Your task to perform on an android device: Go to Reddit.com Image 0: 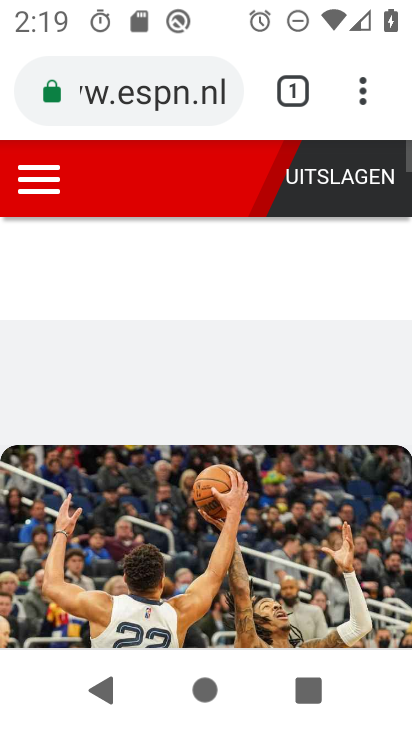
Step 0: press home button
Your task to perform on an android device: Go to Reddit.com Image 1: 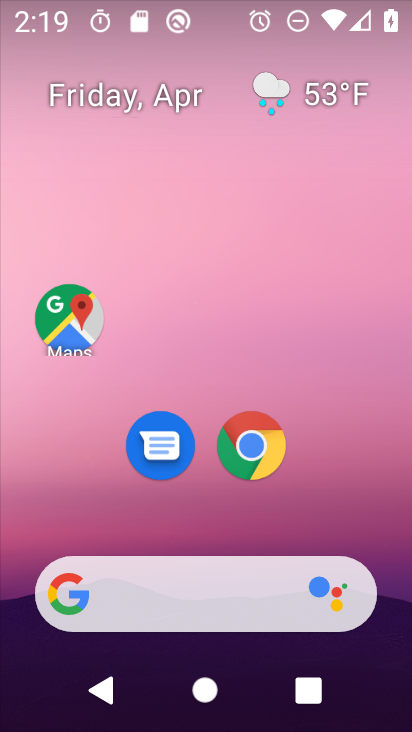
Step 1: drag from (360, 496) to (367, 125)
Your task to perform on an android device: Go to Reddit.com Image 2: 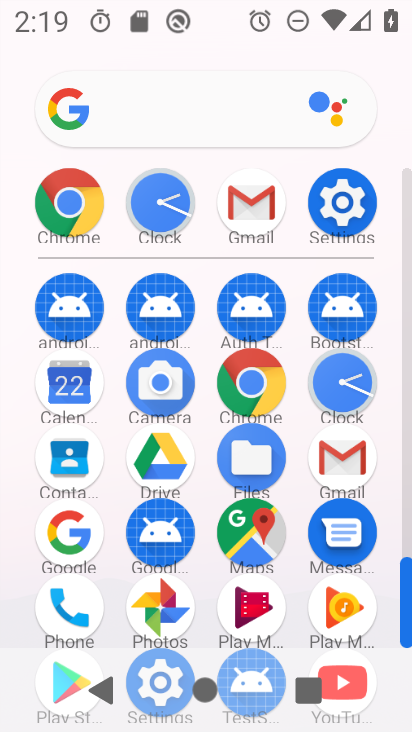
Step 2: click (242, 392)
Your task to perform on an android device: Go to Reddit.com Image 3: 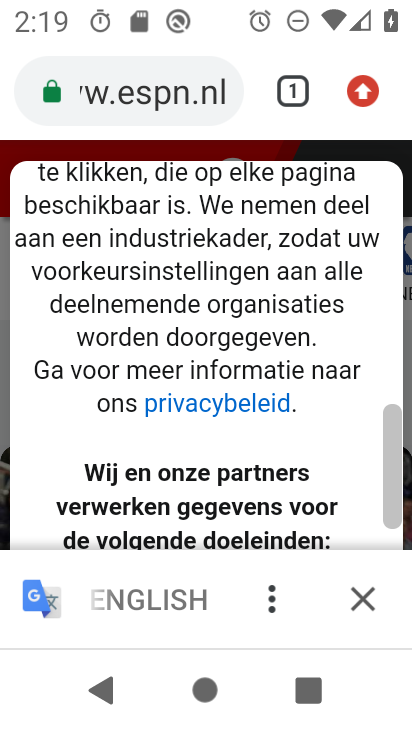
Step 3: click (184, 87)
Your task to perform on an android device: Go to Reddit.com Image 4: 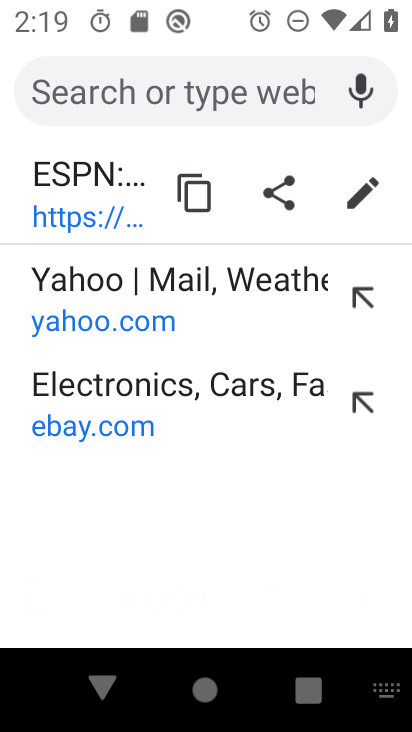
Step 4: type "reddit.com"
Your task to perform on an android device: Go to Reddit.com Image 5: 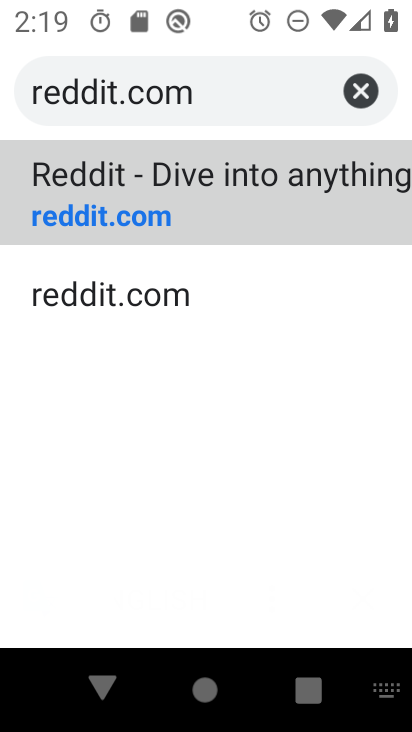
Step 5: click (188, 188)
Your task to perform on an android device: Go to Reddit.com Image 6: 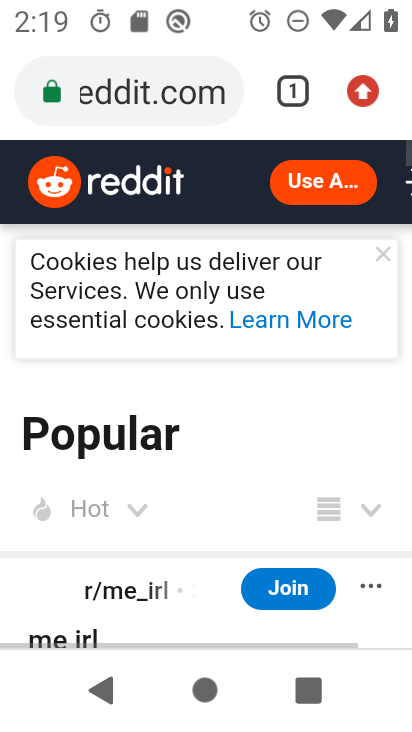
Step 6: task complete